Your task to perform on an android device: turn off improve location accuracy Image 0: 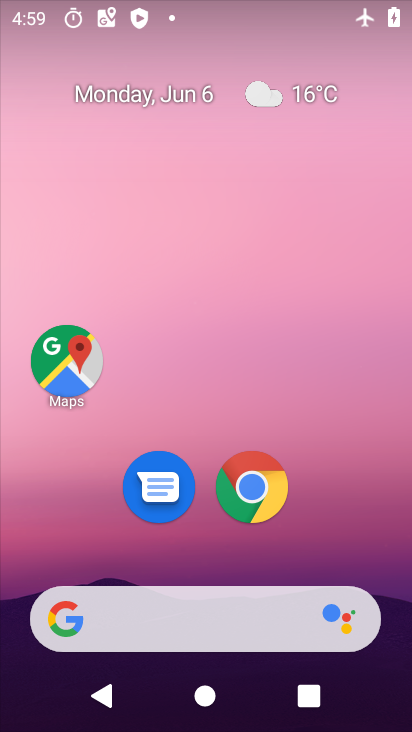
Step 0: drag from (349, 523) to (266, 84)
Your task to perform on an android device: turn off improve location accuracy Image 1: 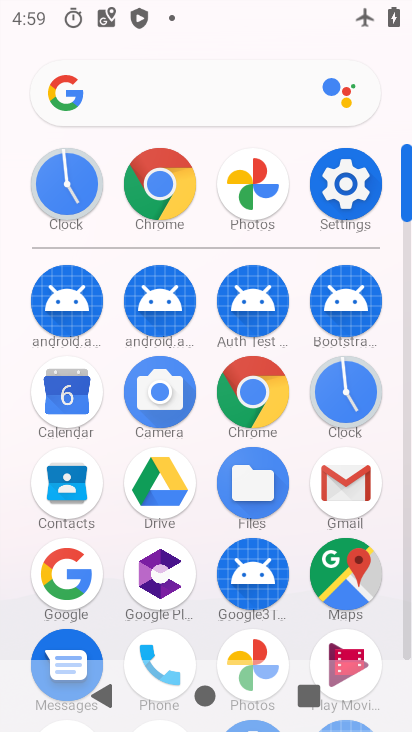
Step 1: click (347, 180)
Your task to perform on an android device: turn off improve location accuracy Image 2: 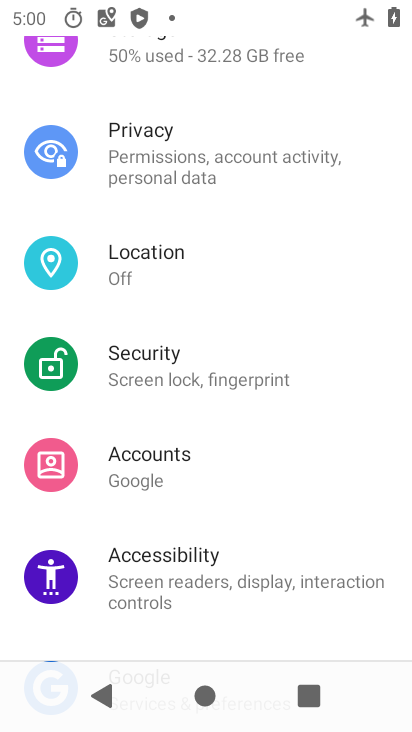
Step 2: click (143, 276)
Your task to perform on an android device: turn off improve location accuracy Image 3: 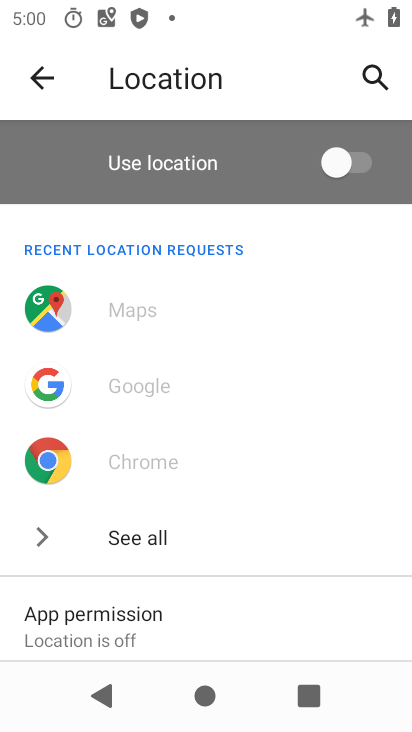
Step 3: drag from (242, 576) to (266, 114)
Your task to perform on an android device: turn off improve location accuracy Image 4: 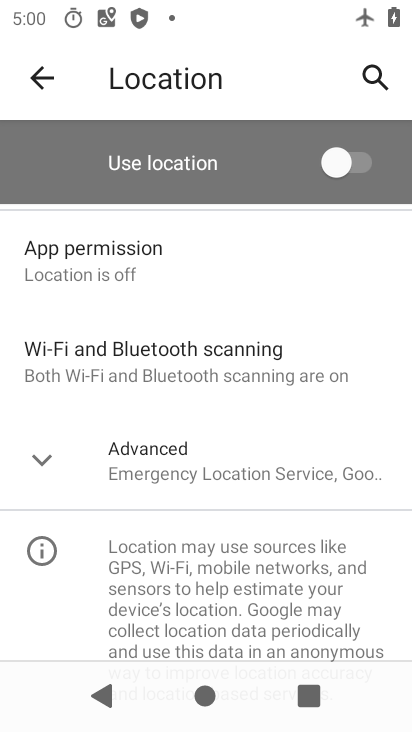
Step 4: click (186, 480)
Your task to perform on an android device: turn off improve location accuracy Image 5: 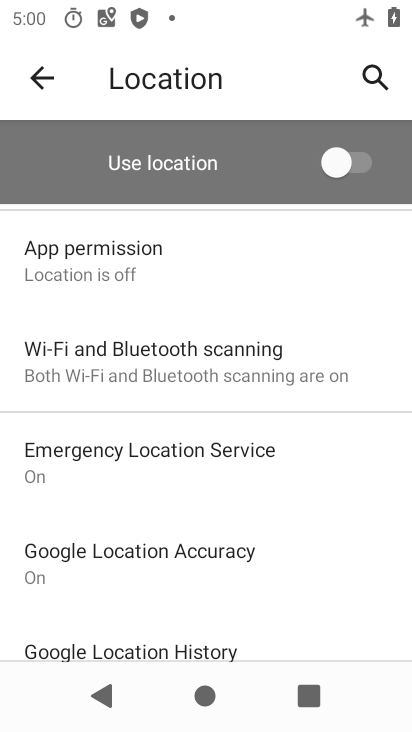
Step 5: click (210, 568)
Your task to perform on an android device: turn off improve location accuracy Image 6: 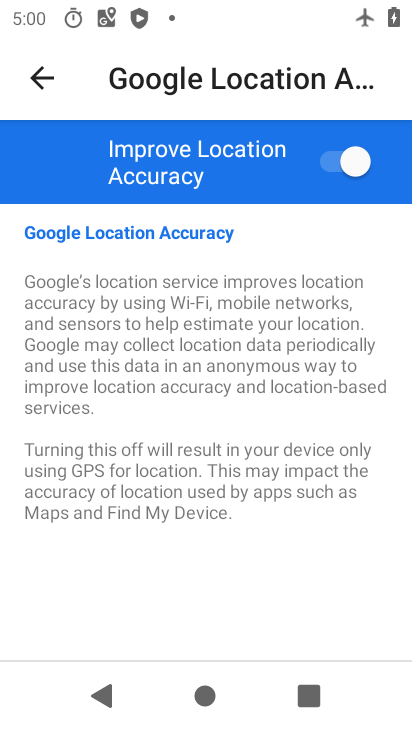
Step 6: click (349, 148)
Your task to perform on an android device: turn off improve location accuracy Image 7: 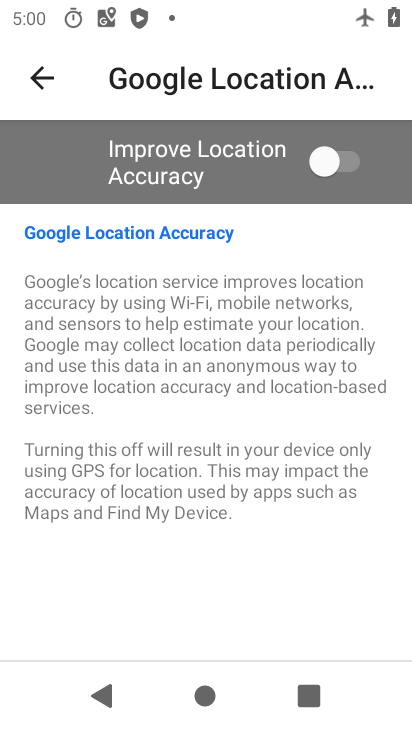
Step 7: task complete